Your task to perform on an android device: find photos in the google photos app Image 0: 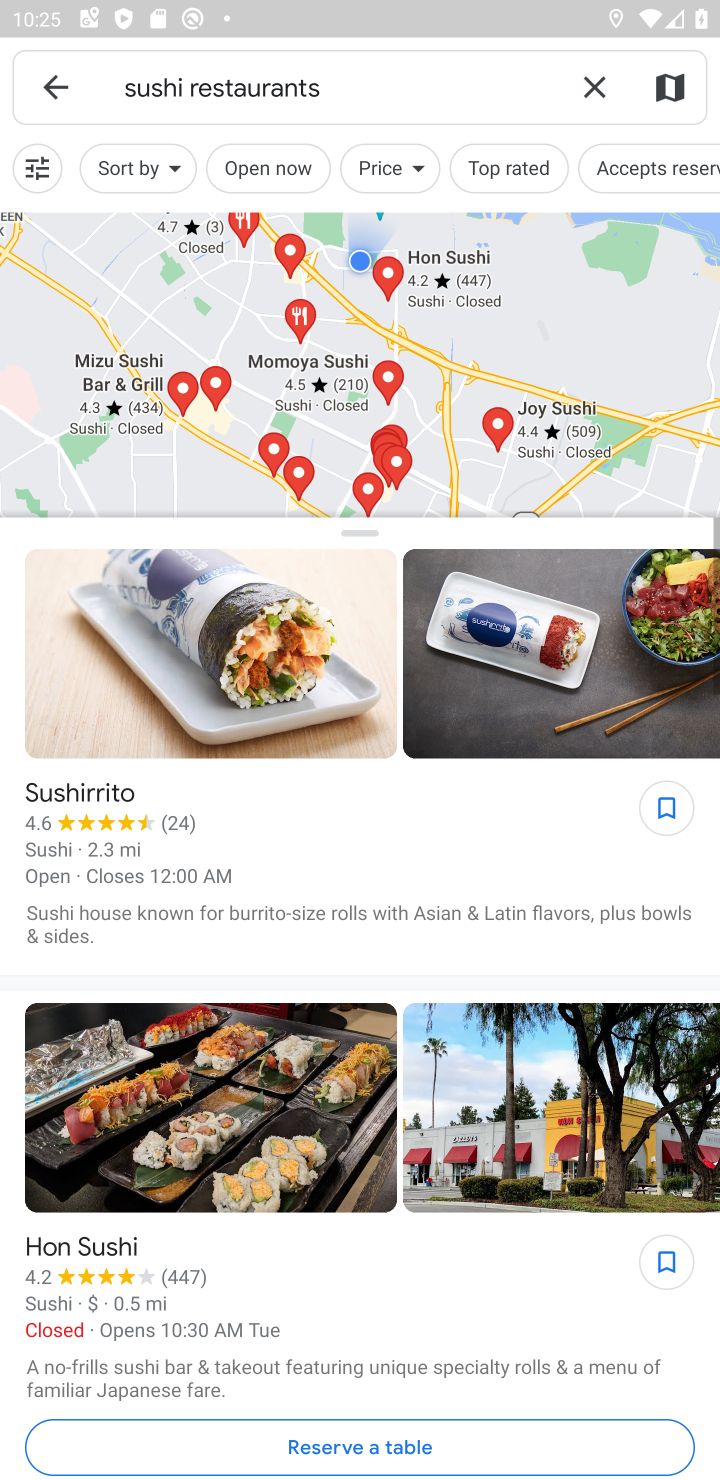
Step 0: press home button
Your task to perform on an android device: find photos in the google photos app Image 1: 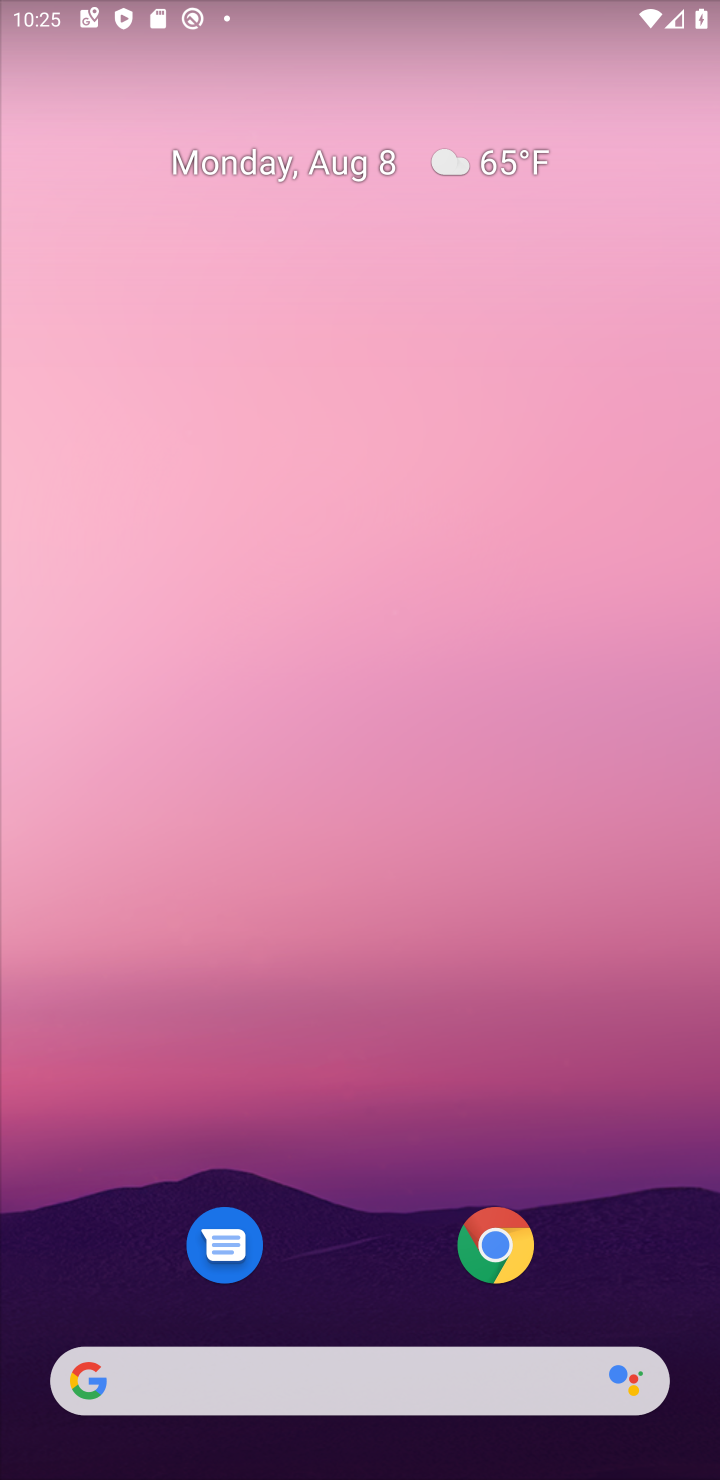
Step 1: drag from (376, 1198) to (72, 104)
Your task to perform on an android device: find photos in the google photos app Image 2: 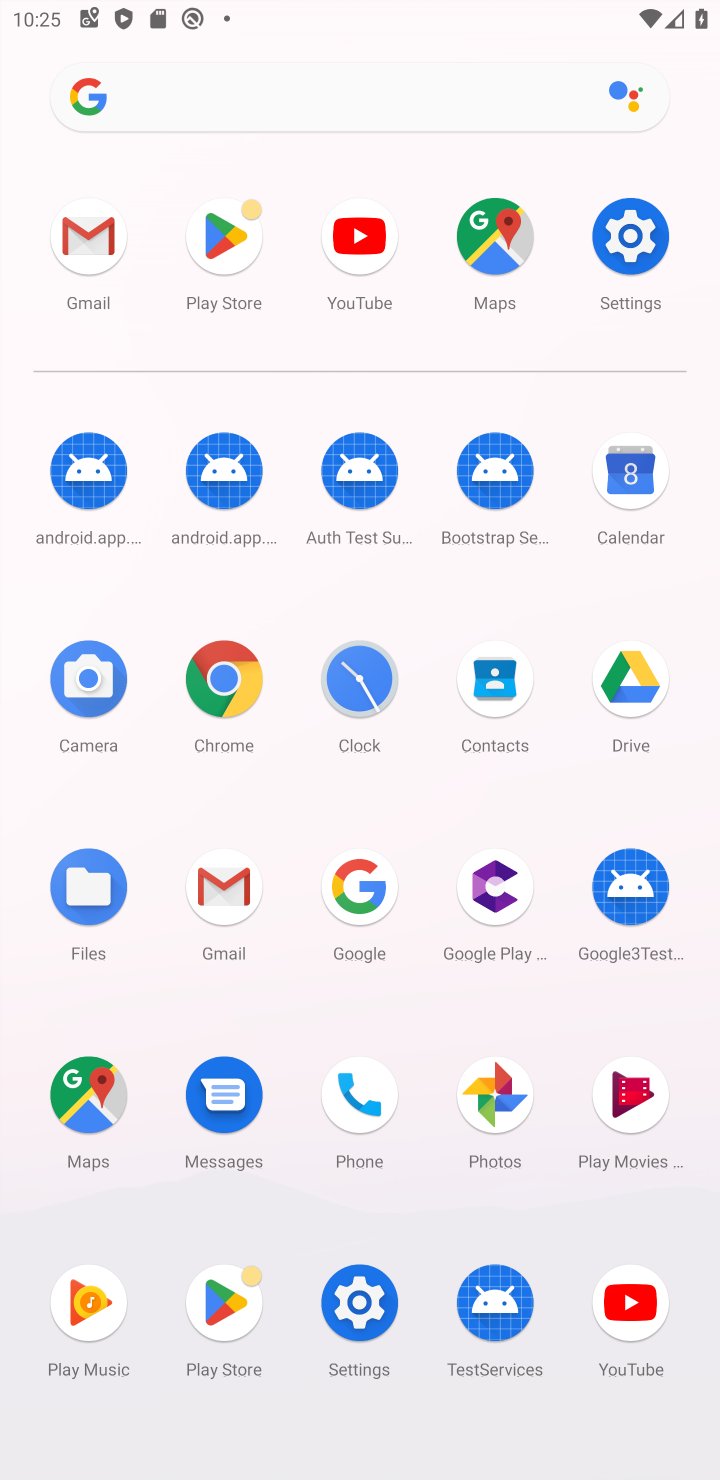
Step 2: click (499, 1097)
Your task to perform on an android device: find photos in the google photos app Image 3: 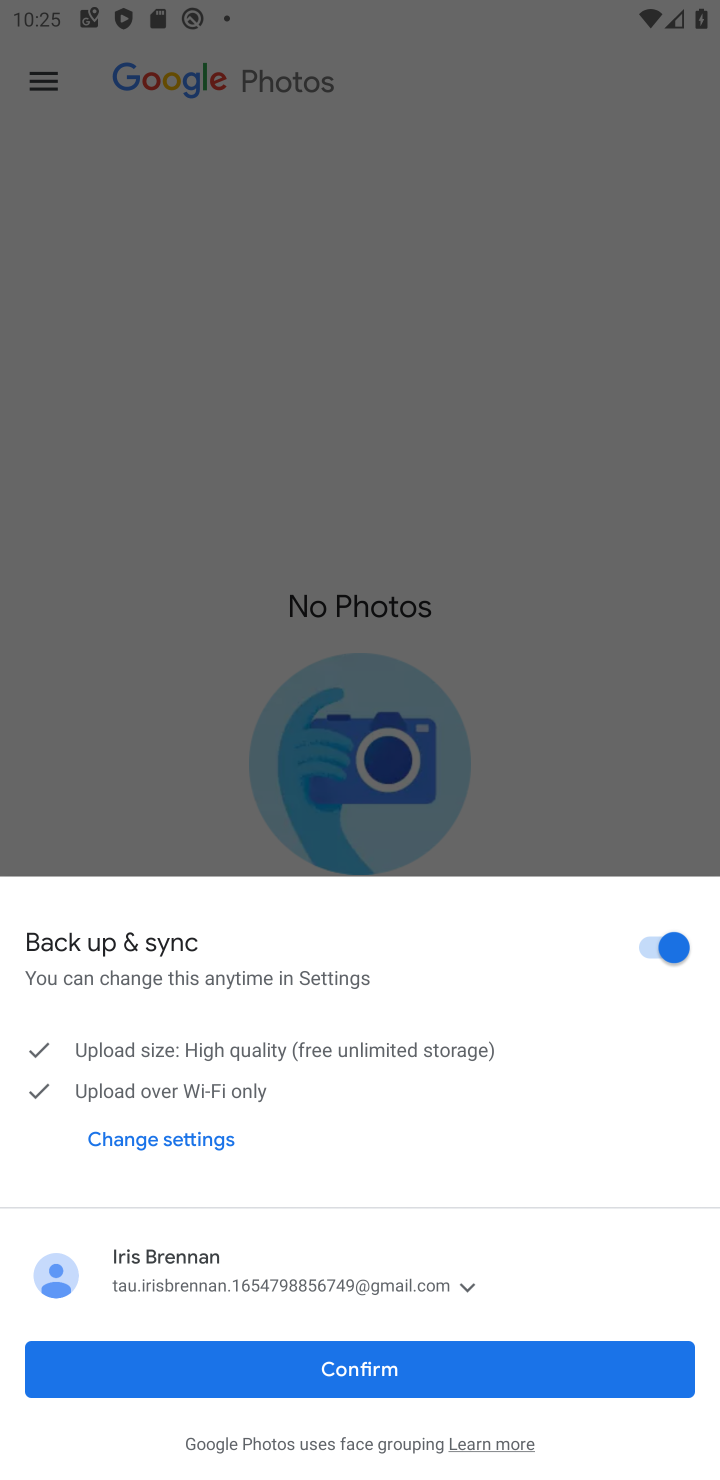
Step 3: click (395, 1363)
Your task to perform on an android device: find photos in the google photos app Image 4: 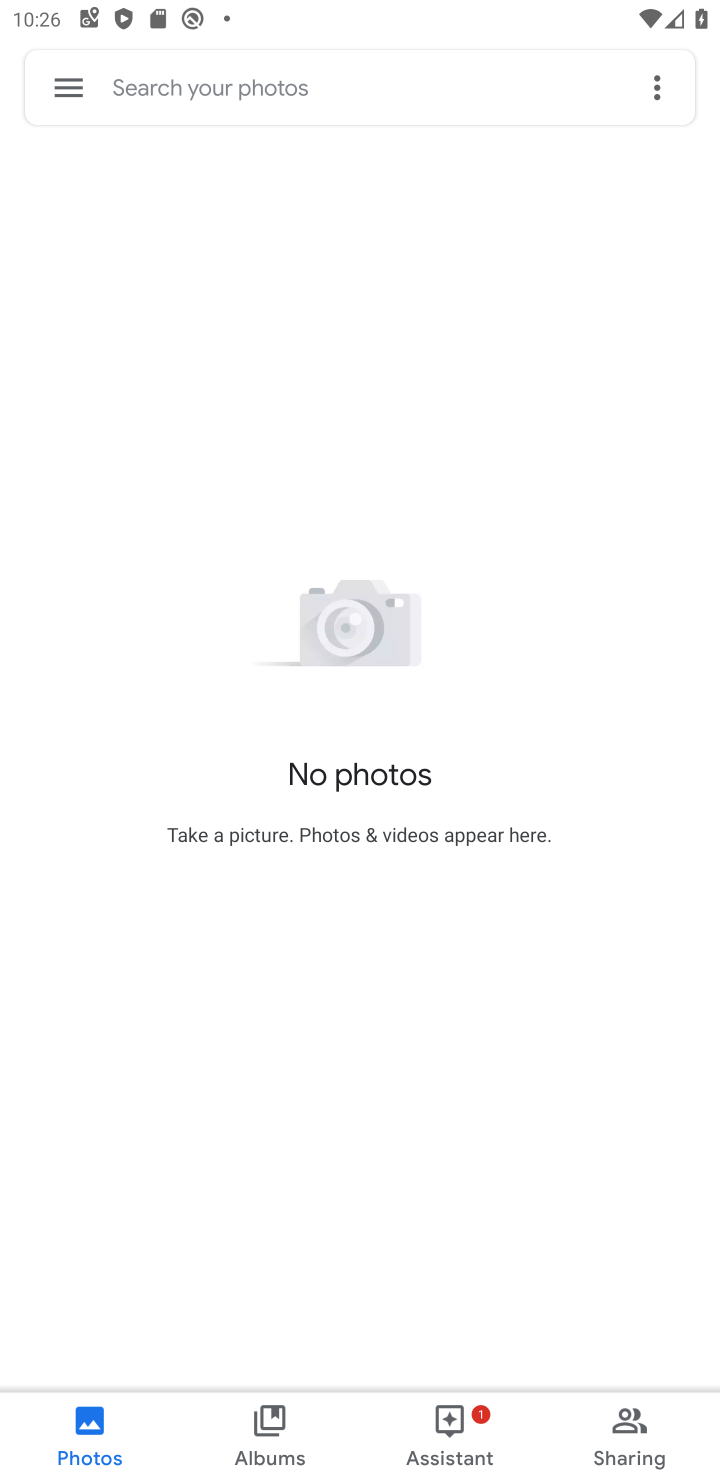
Step 4: click (260, 72)
Your task to perform on an android device: find photos in the google photos app Image 5: 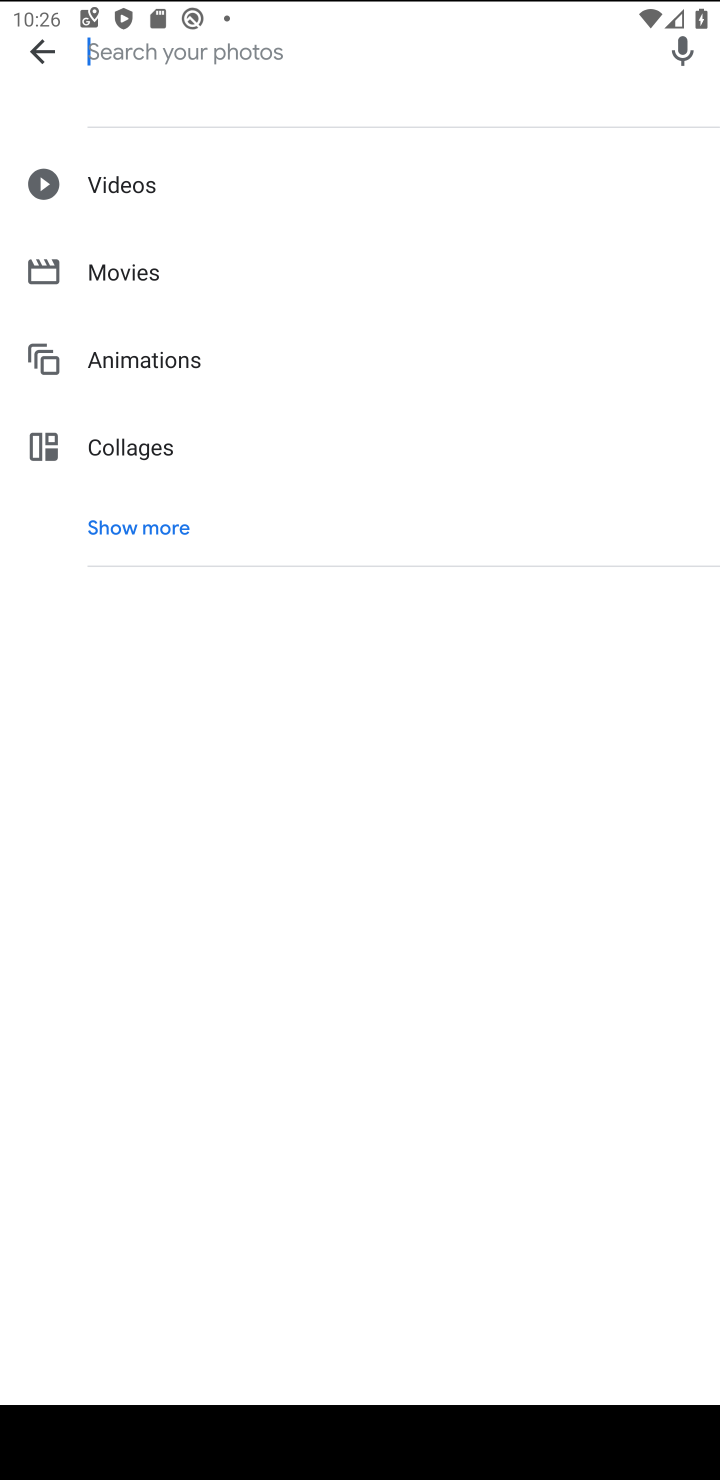
Step 5: task complete